Your task to perform on an android device: open sync settings in chrome Image 0: 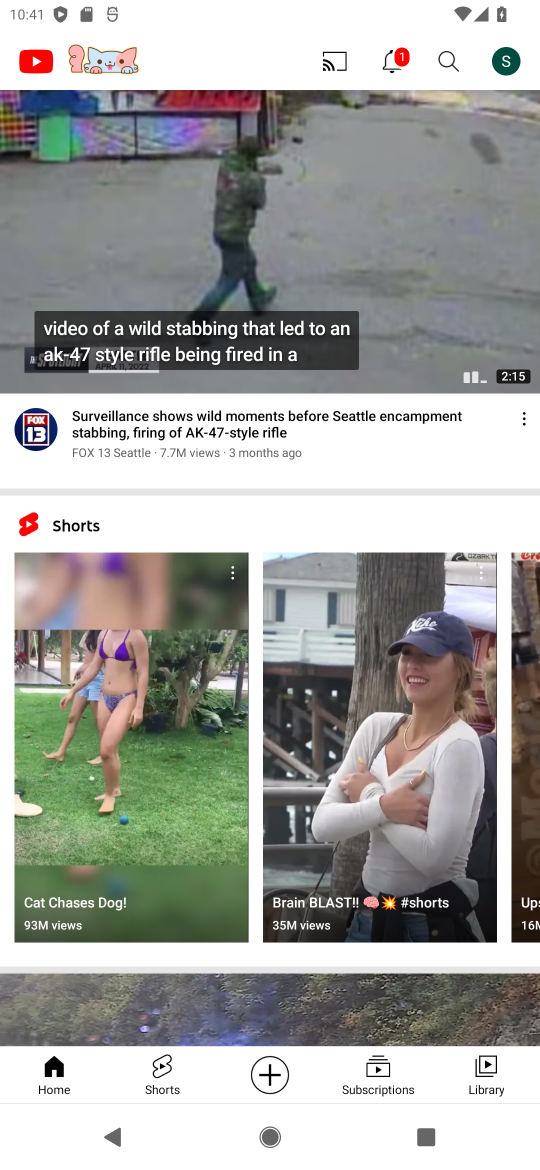
Step 0: press home button
Your task to perform on an android device: open sync settings in chrome Image 1: 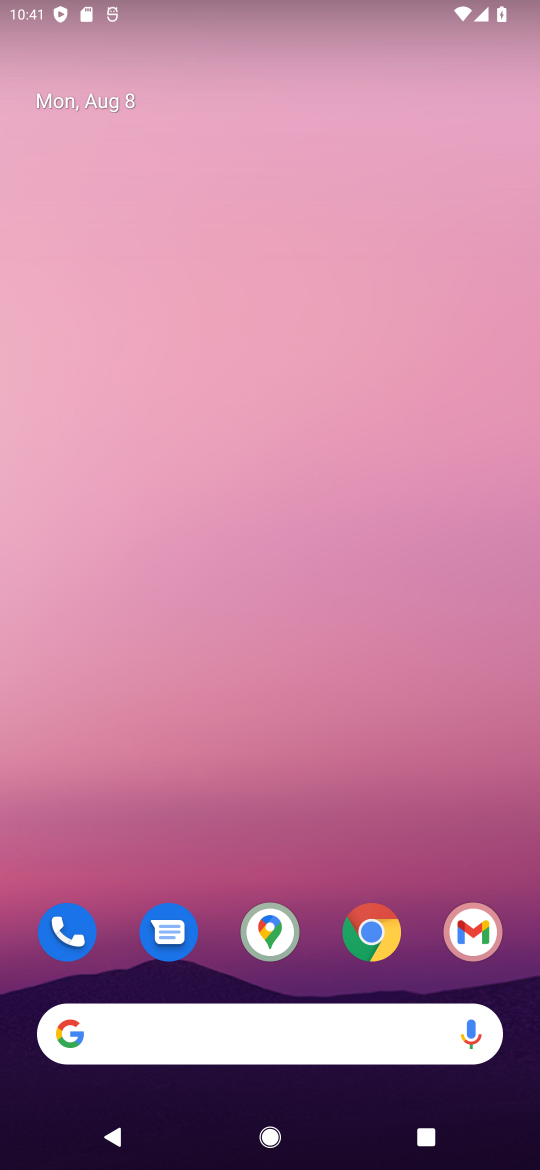
Step 1: click (346, 950)
Your task to perform on an android device: open sync settings in chrome Image 2: 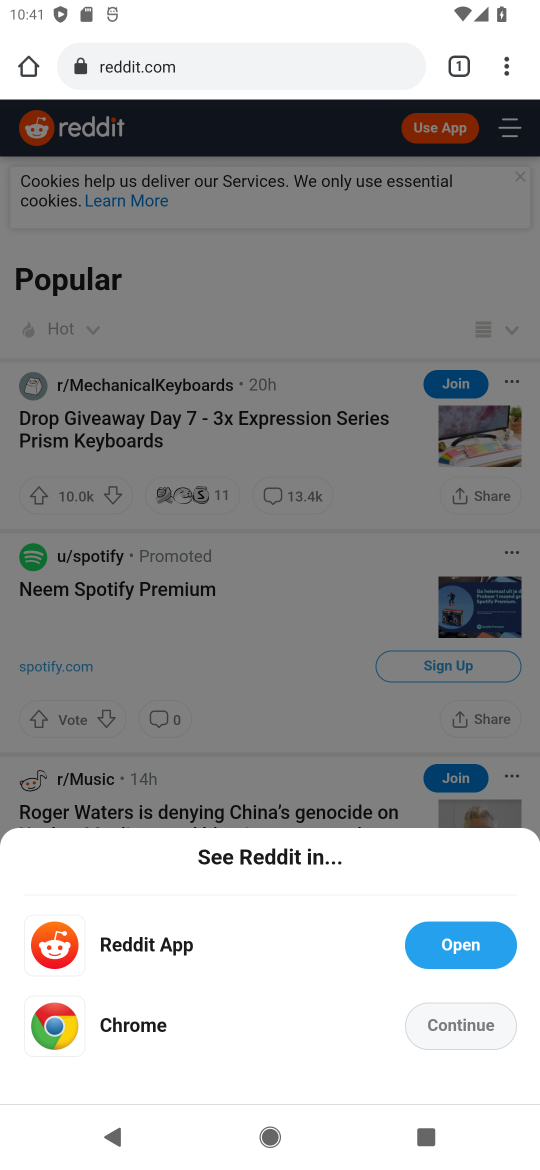
Step 2: click (521, 83)
Your task to perform on an android device: open sync settings in chrome Image 3: 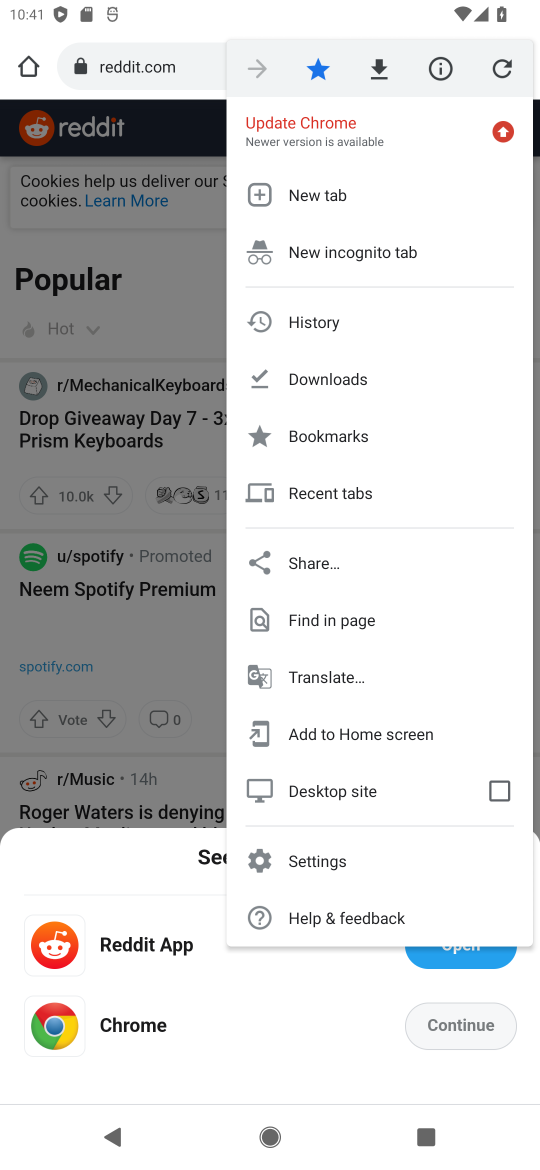
Step 3: click (362, 855)
Your task to perform on an android device: open sync settings in chrome Image 4: 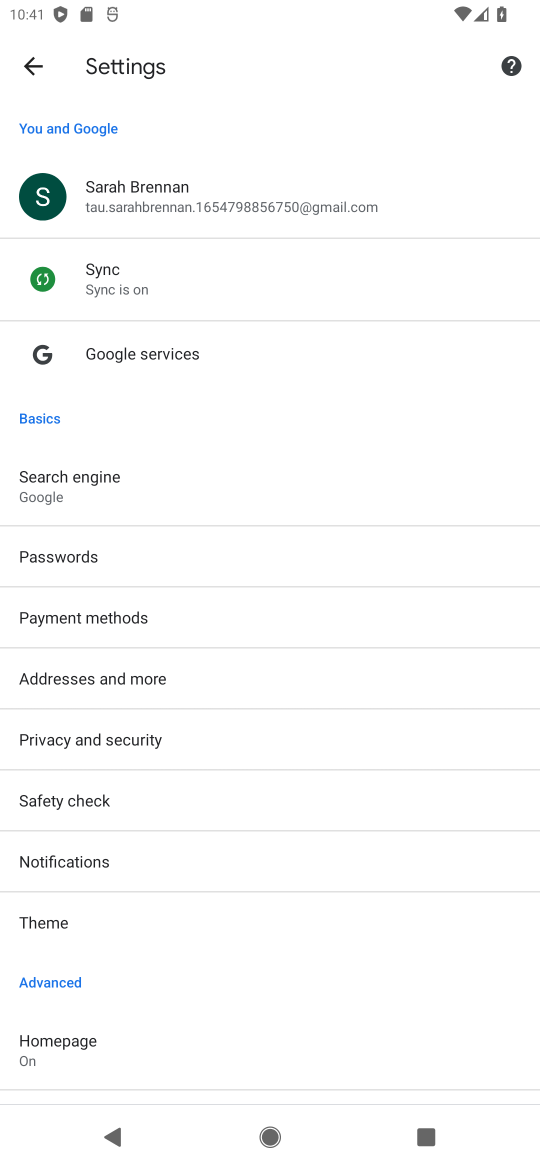
Step 4: click (178, 300)
Your task to perform on an android device: open sync settings in chrome Image 5: 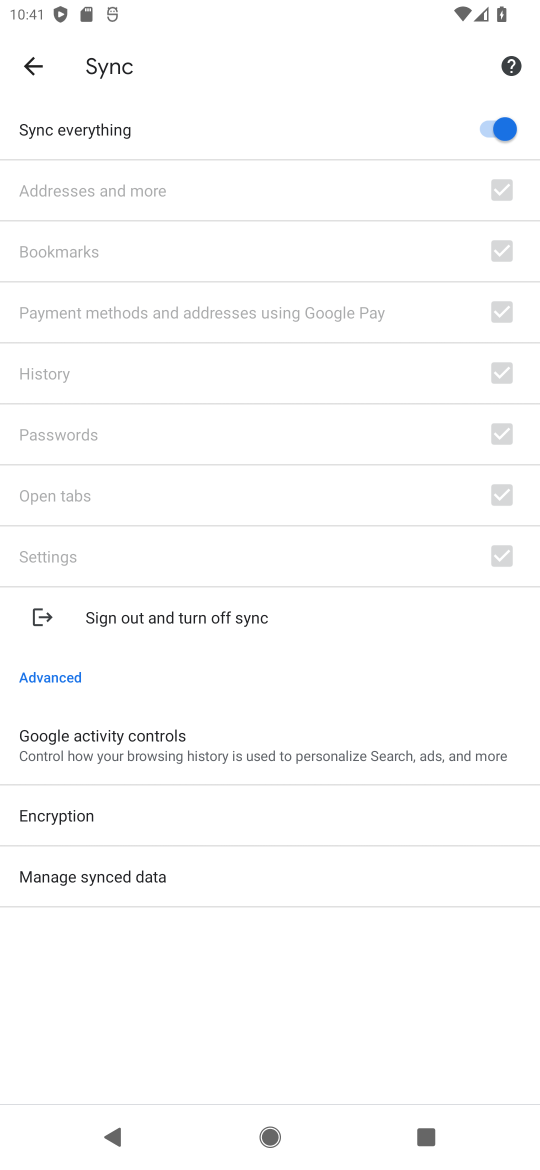
Step 5: task complete